Your task to perform on an android device: Open Chrome and go to the settings page Image 0: 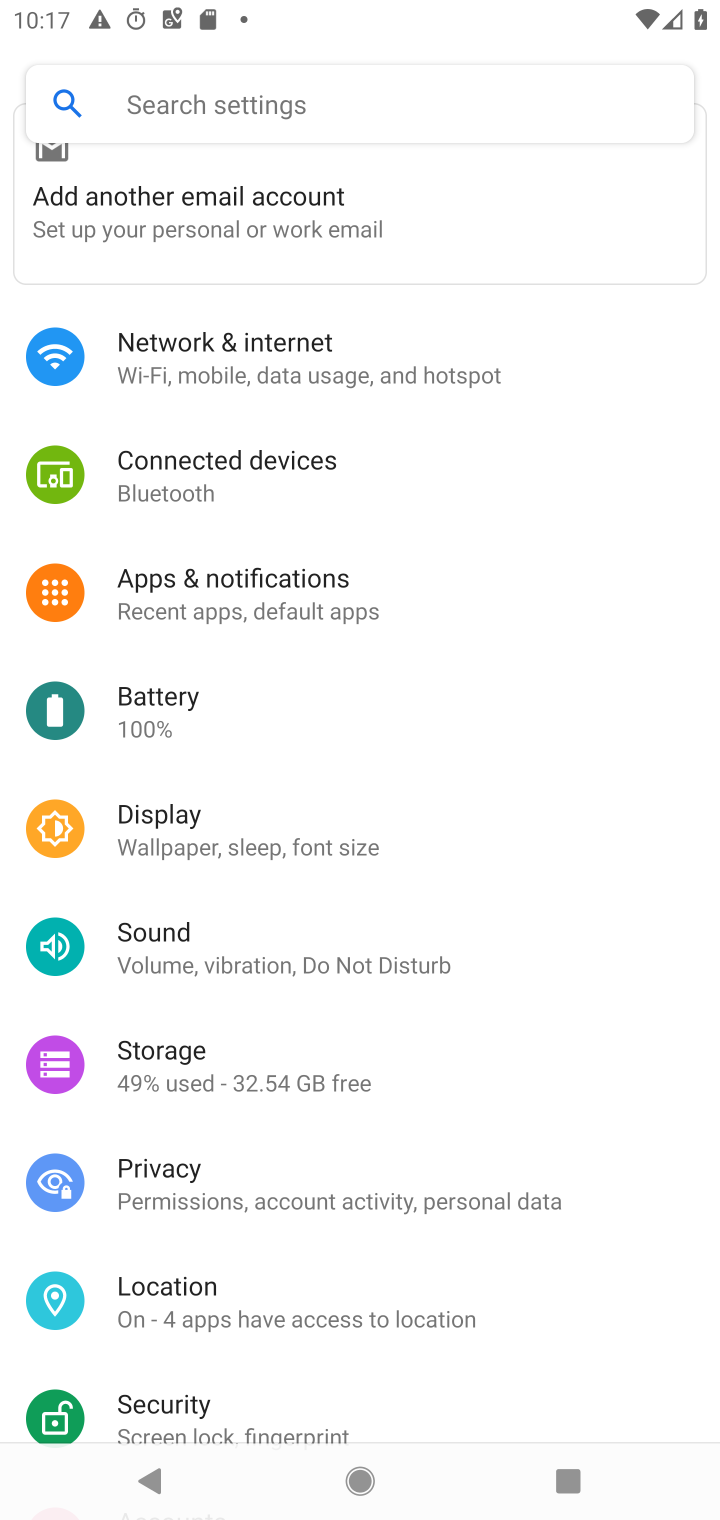
Step 0: press home button
Your task to perform on an android device: Open Chrome and go to the settings page Image 1: 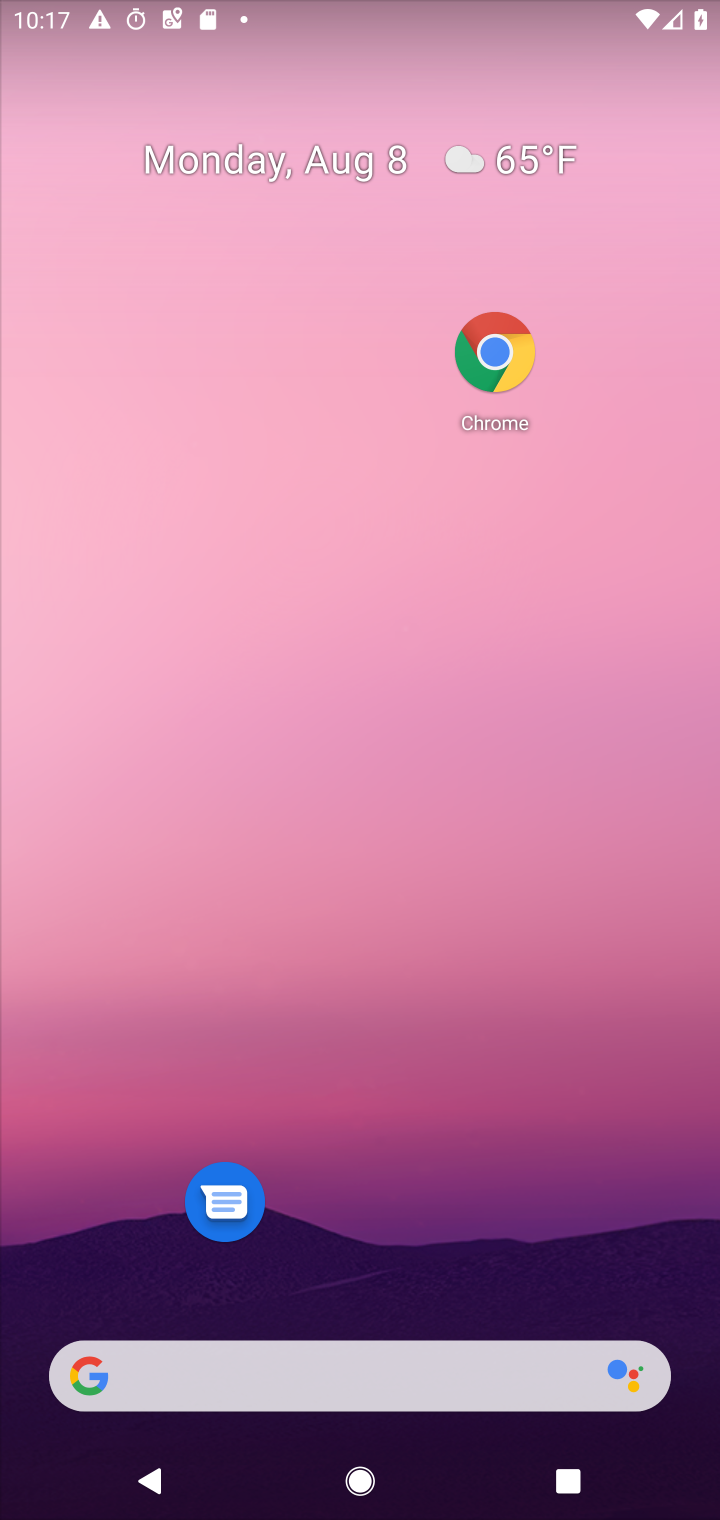
Step 1: drag from (345, 1128) to (424, 162)
Your task to perform on an android device: Open Chrome and go to the settings page Image 2: 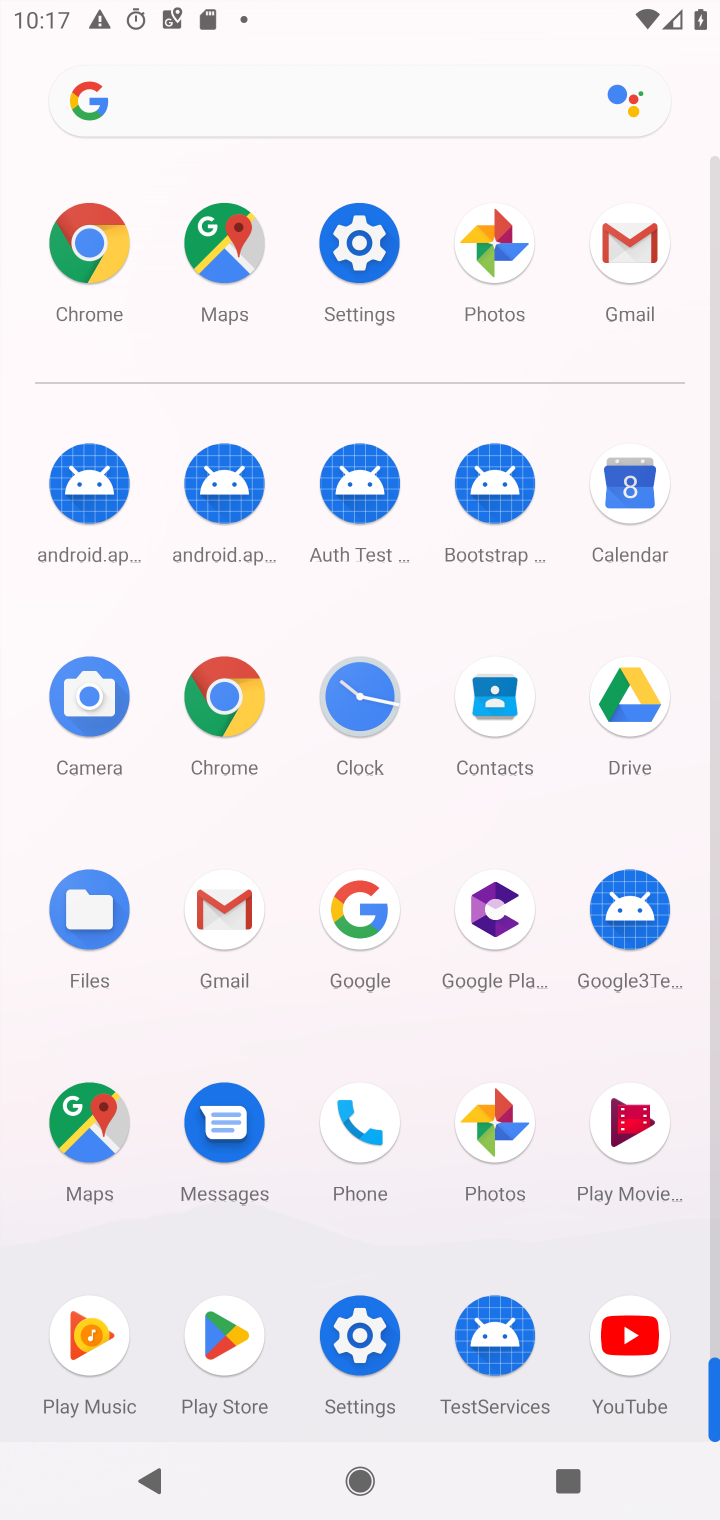
Step 2: click (112, 296)
Your task to perform on an android device: Open Chrome and go to the settings page Image 3: 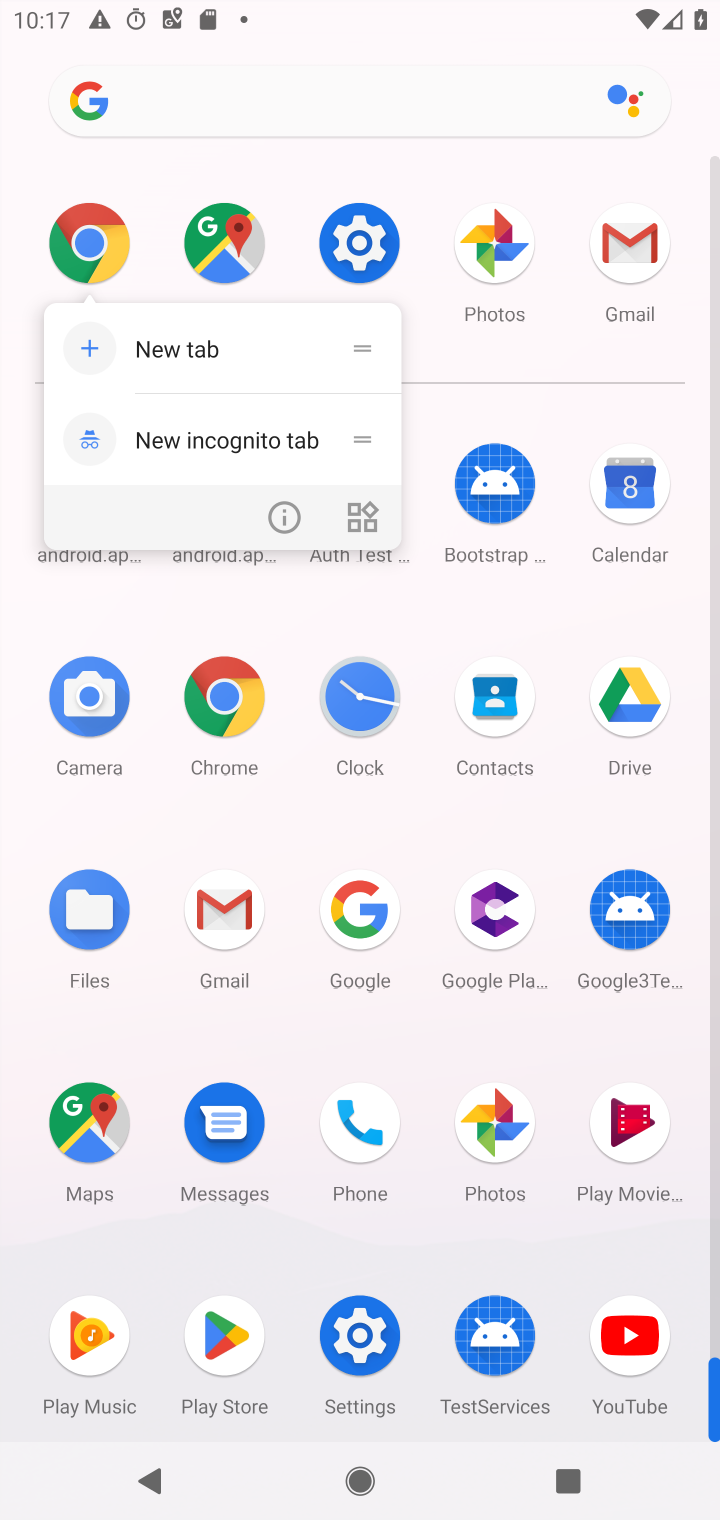
Step 3: click (95, 246)
Your task to perform on an android device: Open Chrome and go to the settings page Image 4: 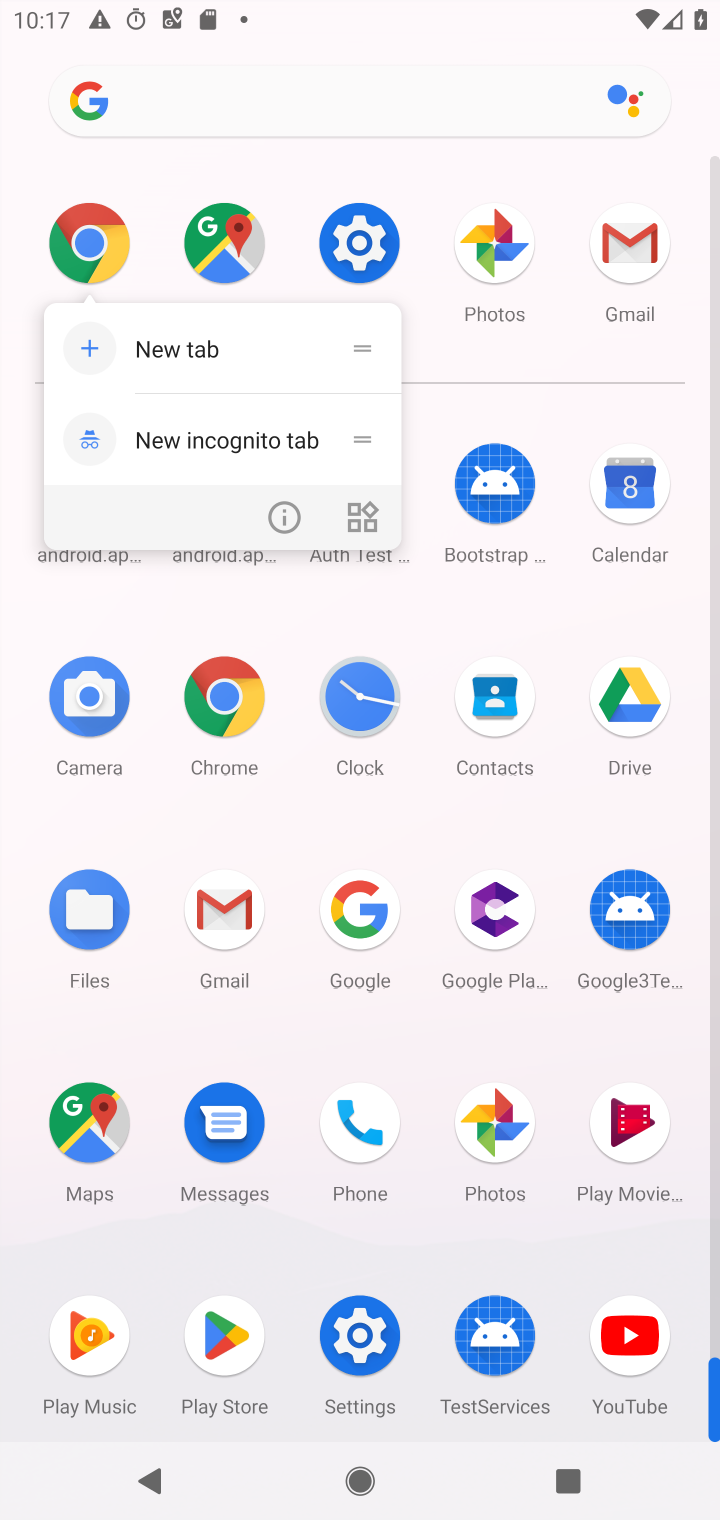
Step 4: click (97, 259)
Your task to perform on an android device: Open Chrome and go to the settings page Image 5: 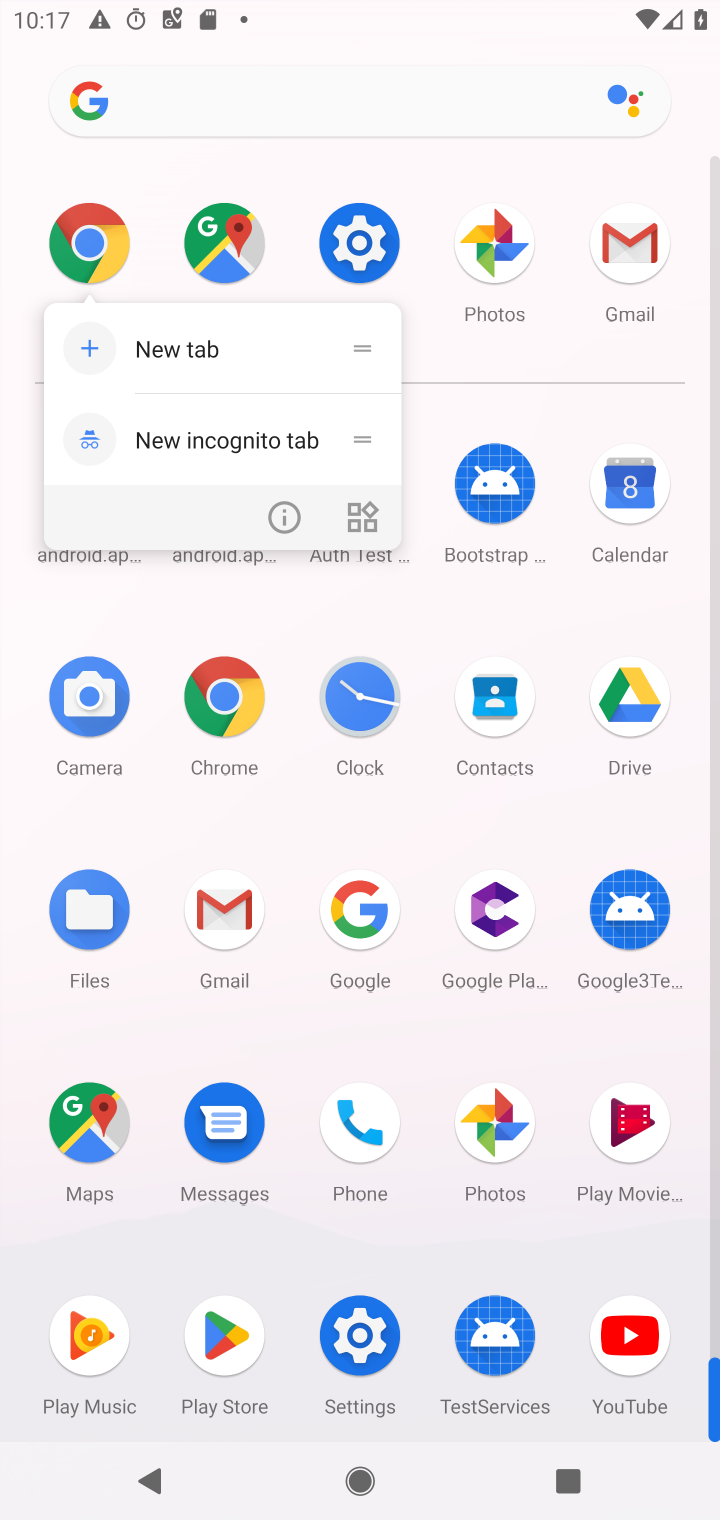
Step 5: click (84, 236)
Your task to perform on an android device: Open Chrome and go to the settings page Image 6: 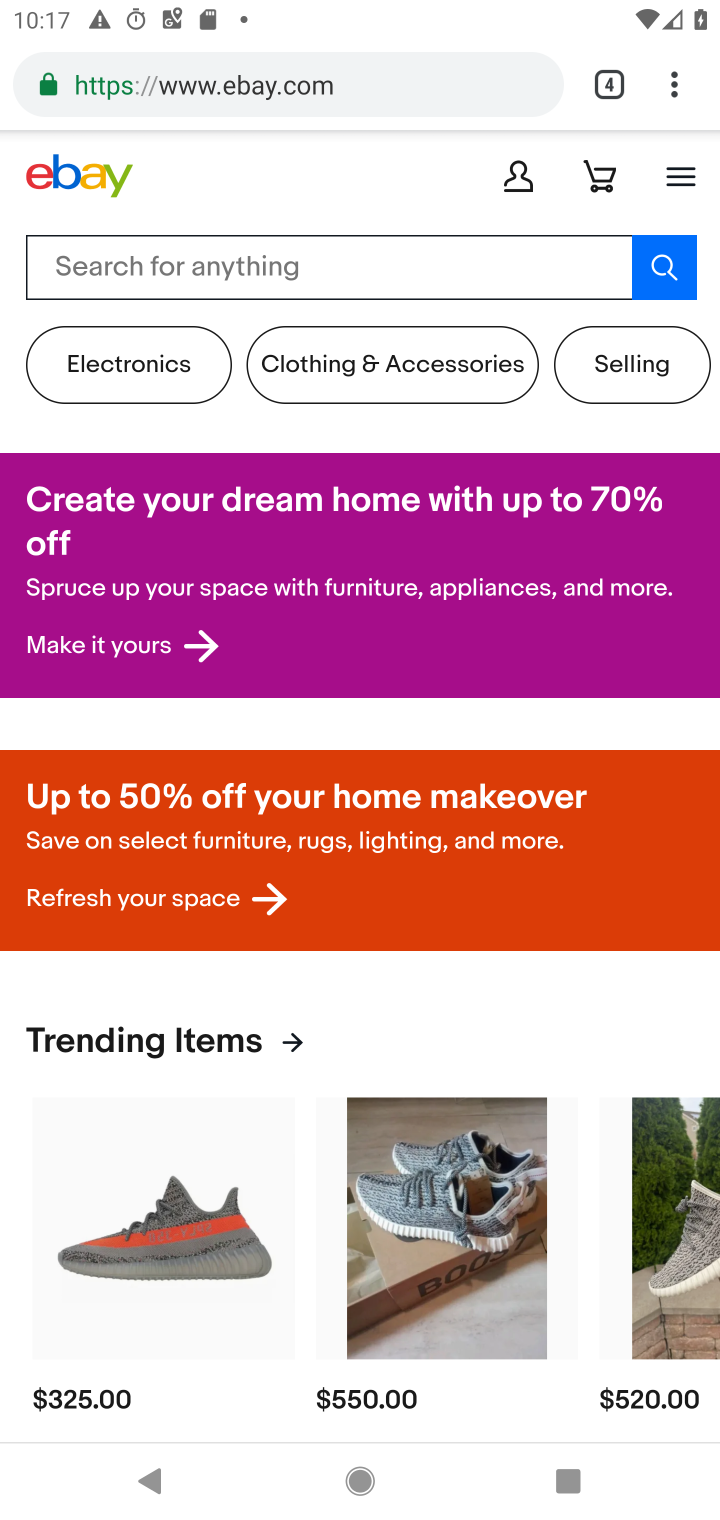
Step 6: click (656, 90)
Your task to perform on an android device: Open Chrome and go to the settings page Image 7: 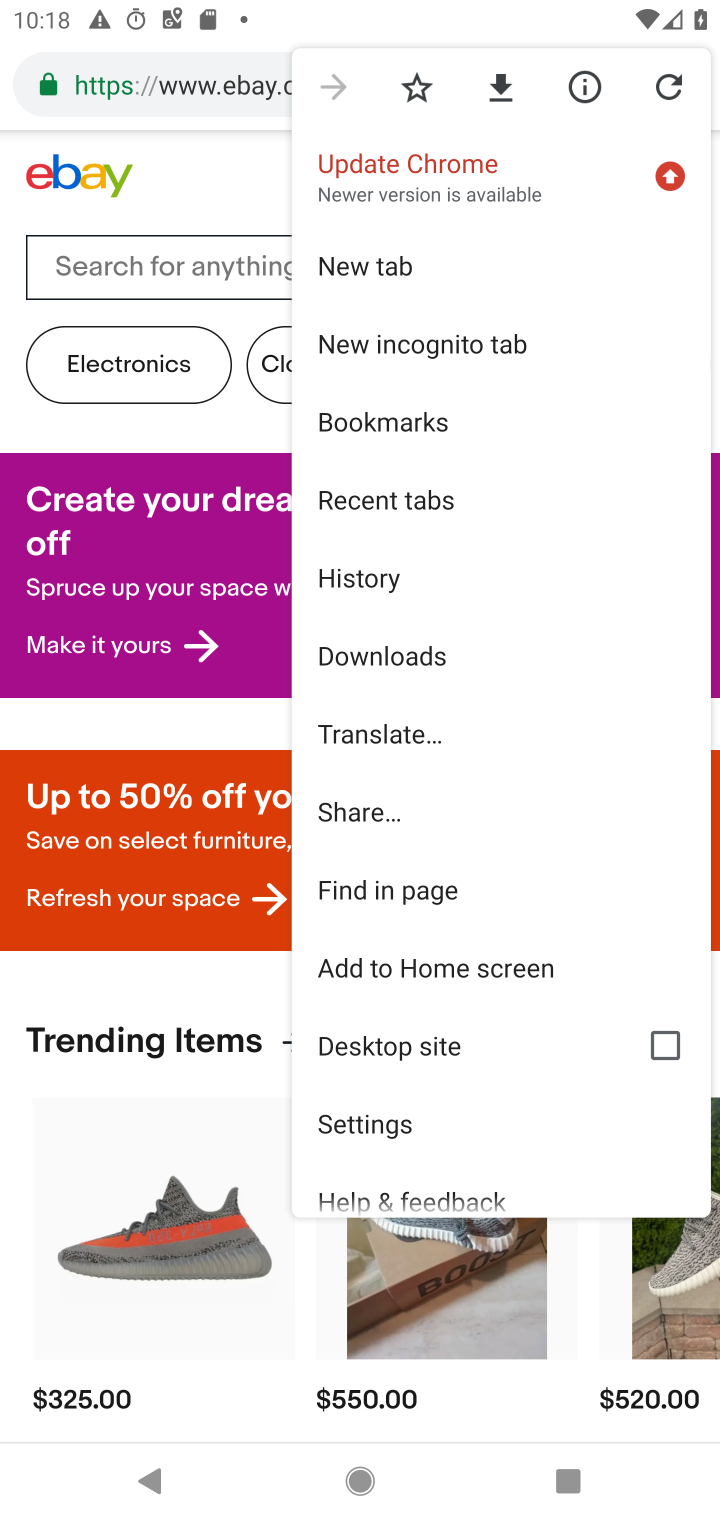
Step 7: click (410, 1129)
Your task to perform on an android device: Open Chrome and go to the settings page Image 8: 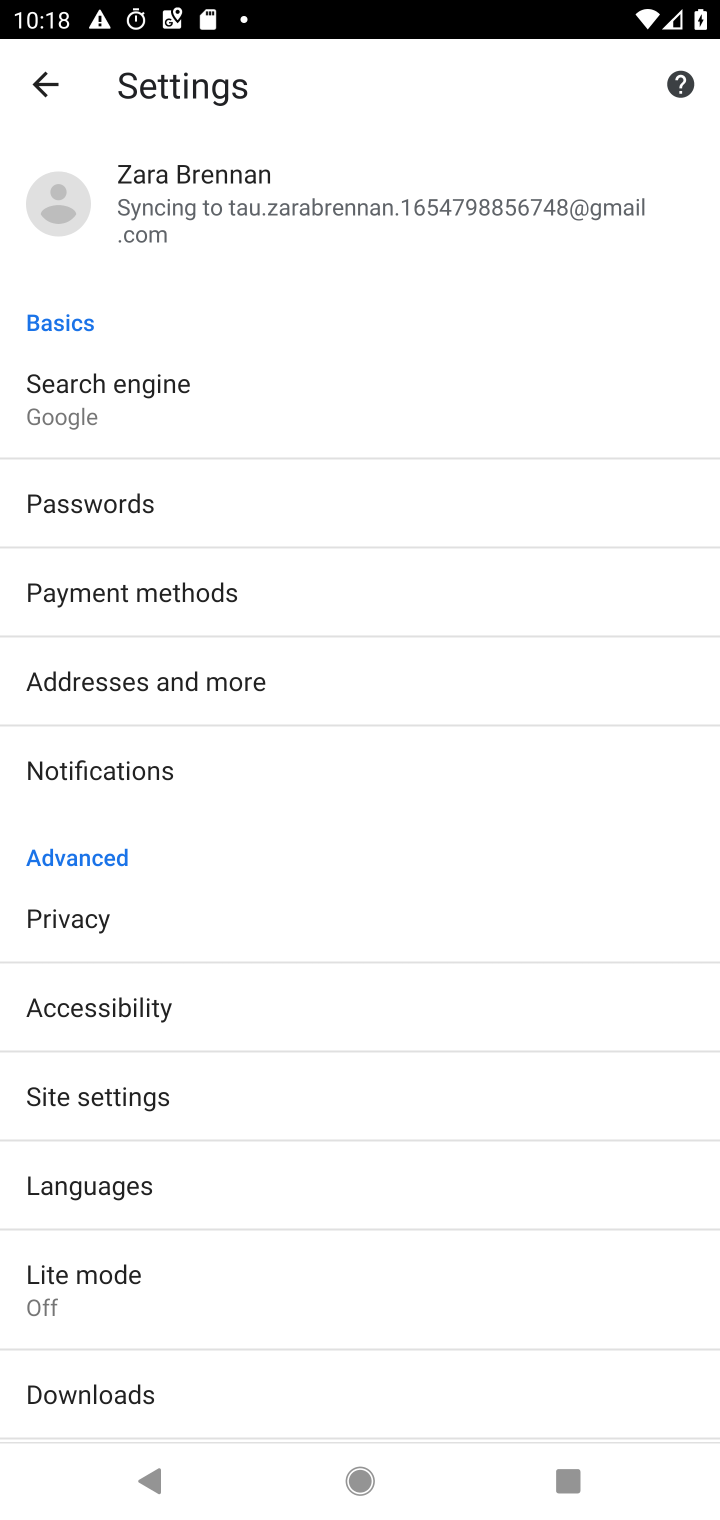
Step 8: task complete